Your task to perform on an android device: Open notification settings Image 0: 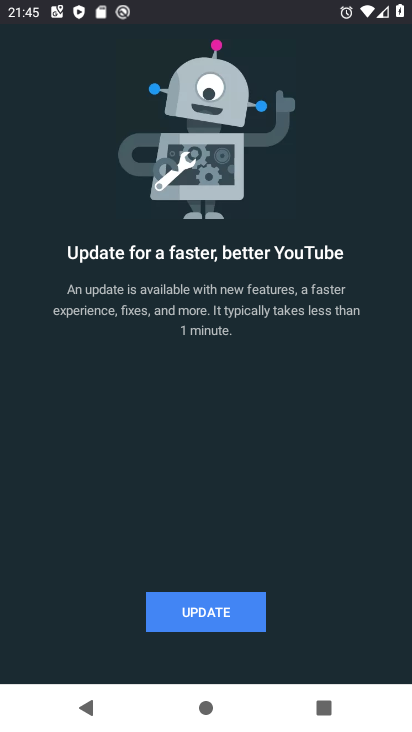
Step 0: press back button
Your task to perform on an android device: Open notification settings Image 1: 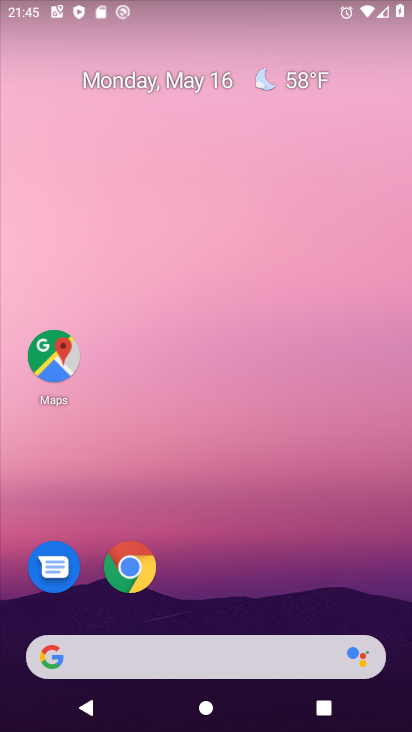
Step 1: drag from (261, 625) to (307, 244)
Your task to perform on an android device: Open notification settings Image 2: 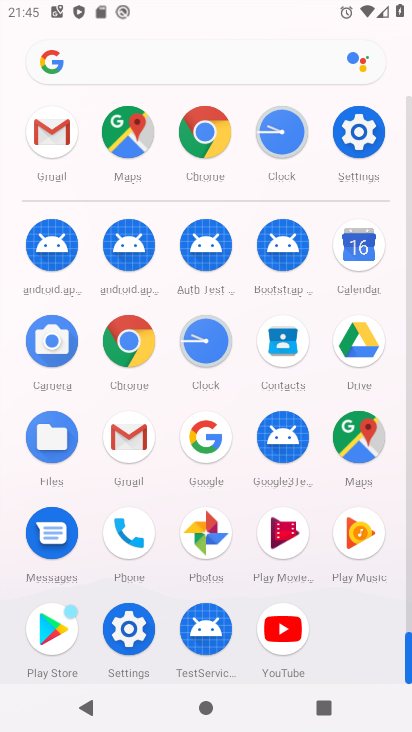
Step 2: click (349, 119)
Your task to perform on an android device: Open notification settings Image 3: 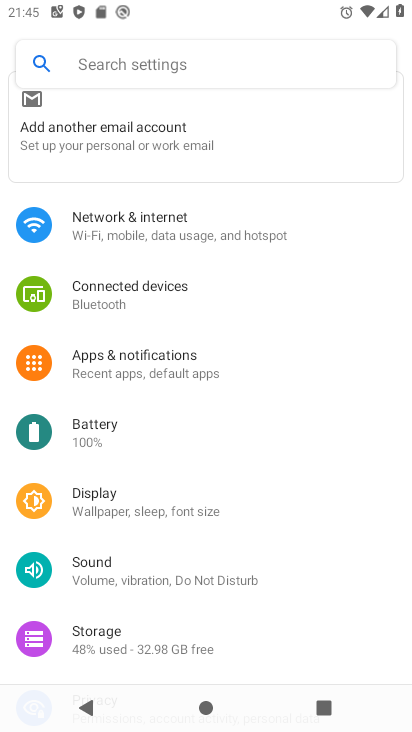
Step 3: click (184, 366)
Your task to perform on an android device: Open notification settings Image 4: 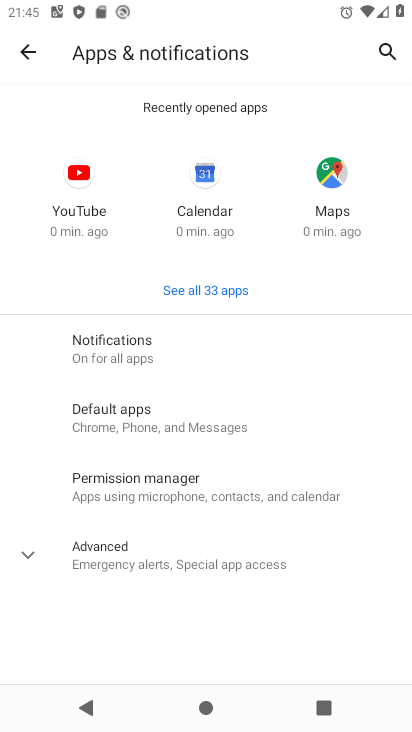
Step 4: click (145, 353)
Your task to perform on an android device: Open notification settings Image 5: 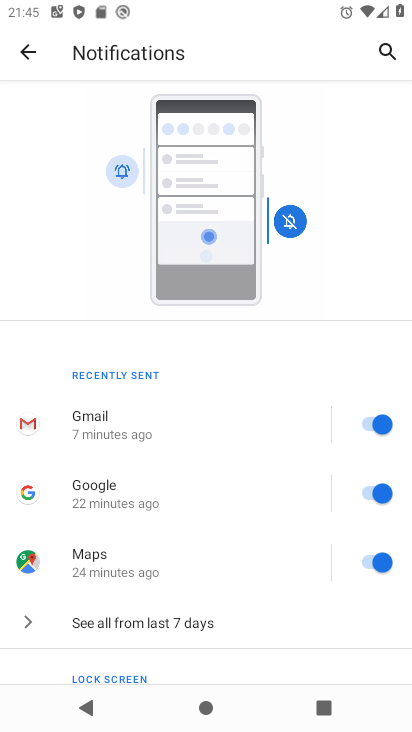
Step 5: task complete